Your task to perform on an android device: Do I have any events tomorrow? Image 0: 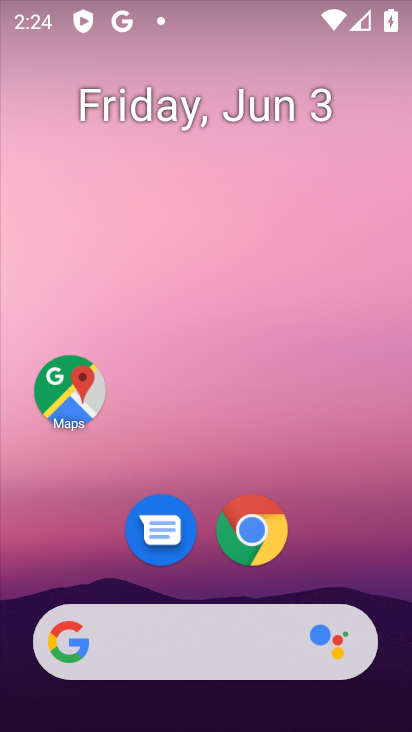
Step 0: drag from (154, 722) to (155, 167)
Your task to perform on an android device: Do I have any events tomorrow? Image 1: 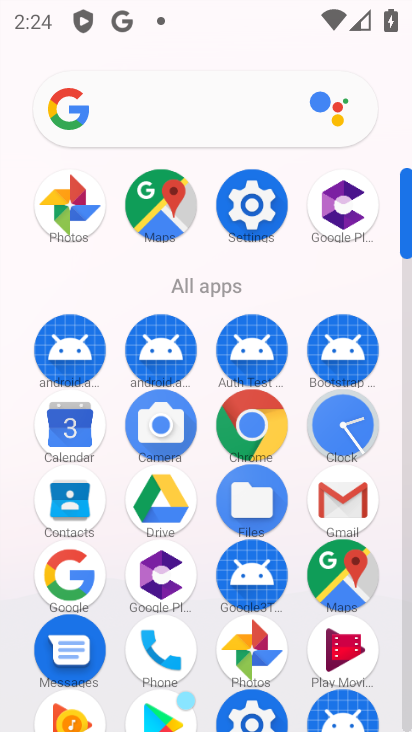
Step 1: click (55, 420)
Your task to perform on an android device: Do I have any events tomorrow? Image 2: 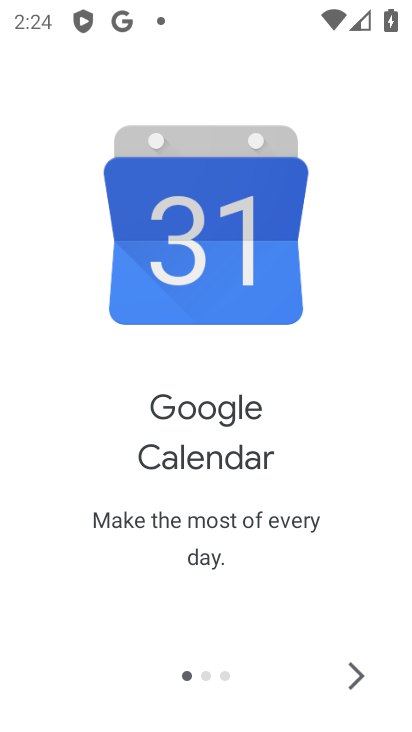
Step 2: click (346, 660)
Your task to perform on an android device: Do I have any events tomorrow? Image 3: 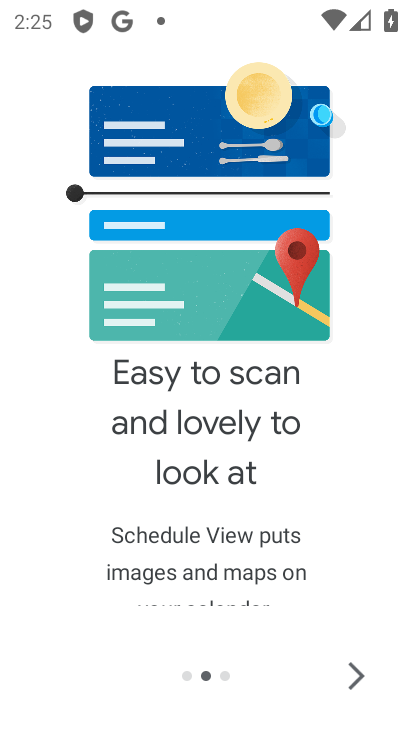
Step 3: click (349, 670)
Your task to perform on an android device: Do I have any events tomorrow? Image 4: 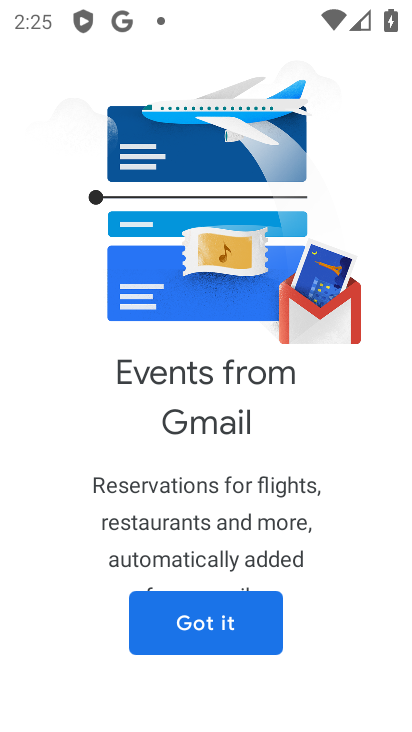
Step 4: click (231, 641)
Your task to perform on an android device: Do I have any events tomorrow? Image 5: 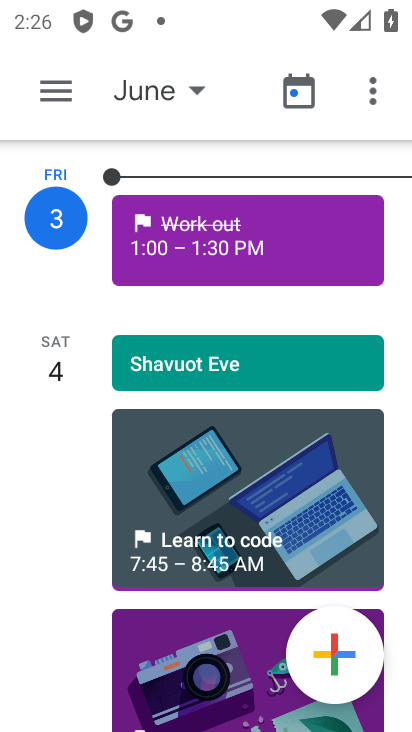
Step 5: click (268, 459)
Your task to perform on an android device: Do I have any events tomorrow? Image 6: 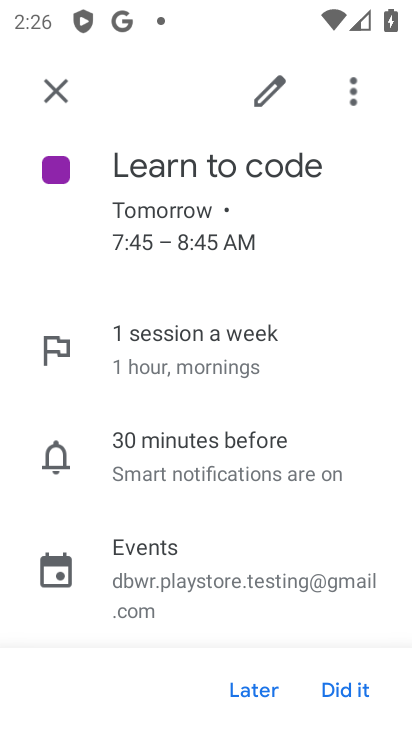
Step 6: task complete